Your task to perform on an android device: see sites visited before in the chrome app Image 0: 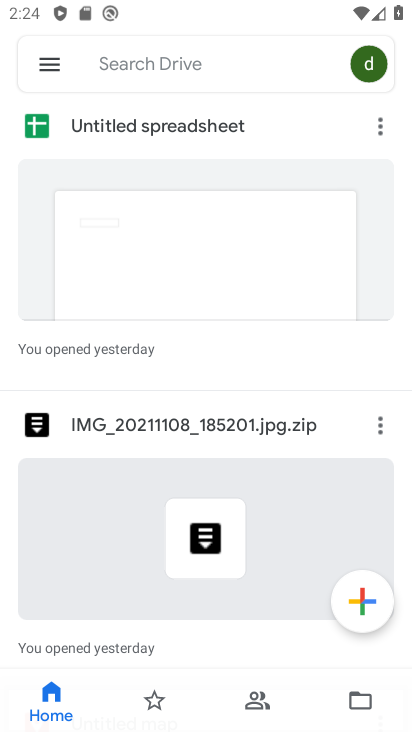
Step 0: press back button
Your task to perform on an android device: see sites visited before in the chrome app Image 1: 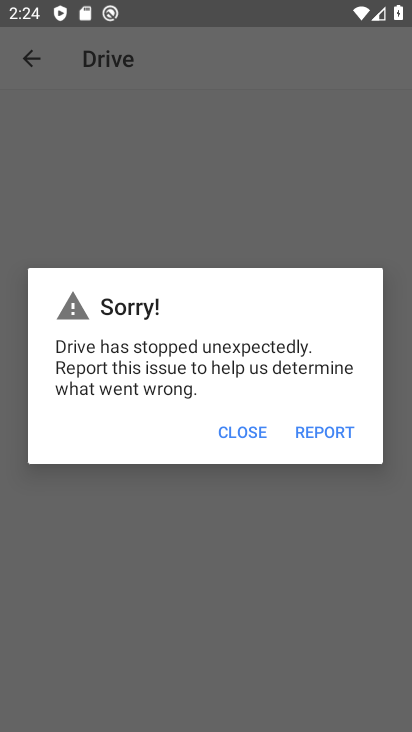
Step 1: click (259, 424)
Your task to perform on an android device: see sites visited before in the chrome app Image 2: 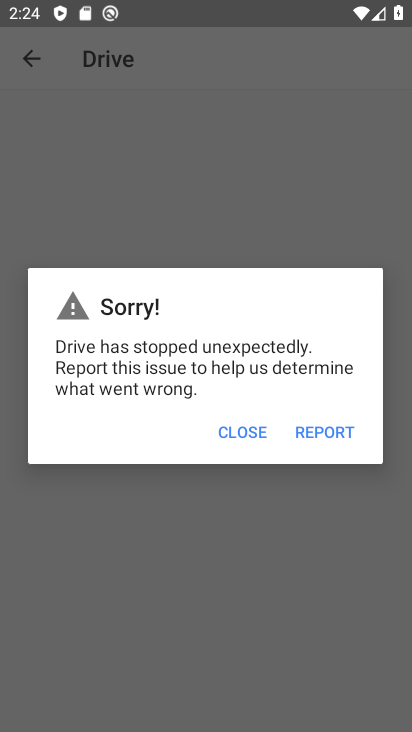
Step 2: click (259, 424)
Your task to perform on an android device: see sites visited before in the chrome app Image 3: 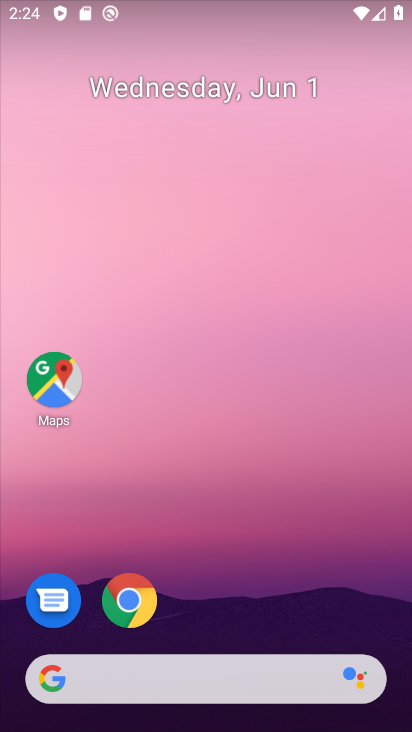
Step 3: drag from (249, 698) to (206, 263)
Your task to perform on an android device: see sites visited before in the chrome app Image 4: 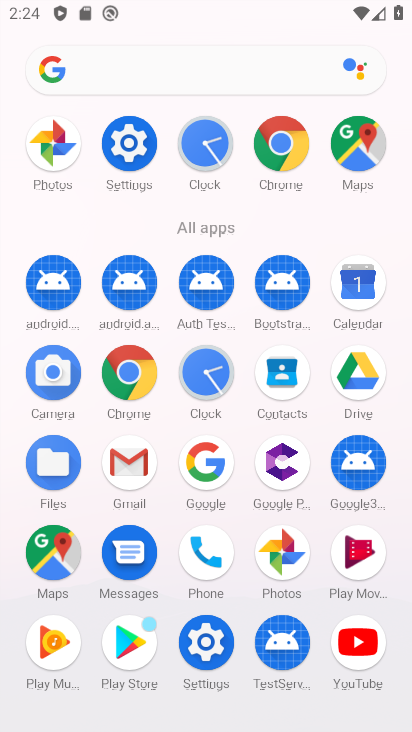
Step 4: click (279, 161)
Your task to perform on an android device: see sites visited before in the chrome app Image 5: 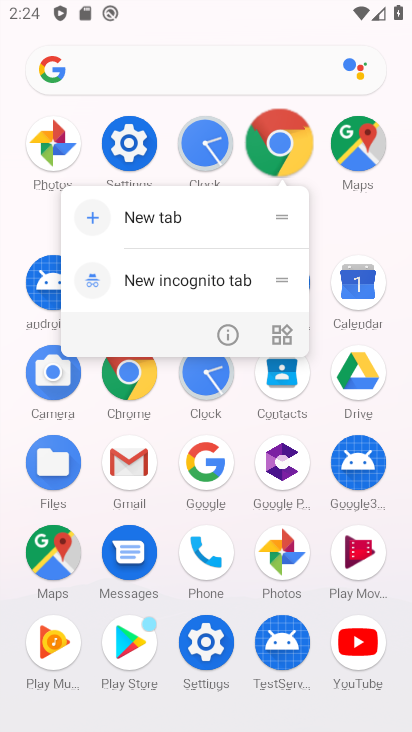
Step 5: click (277, 156)
Your task to perform on an android device: see sites visited before in the chrome app Image 6: 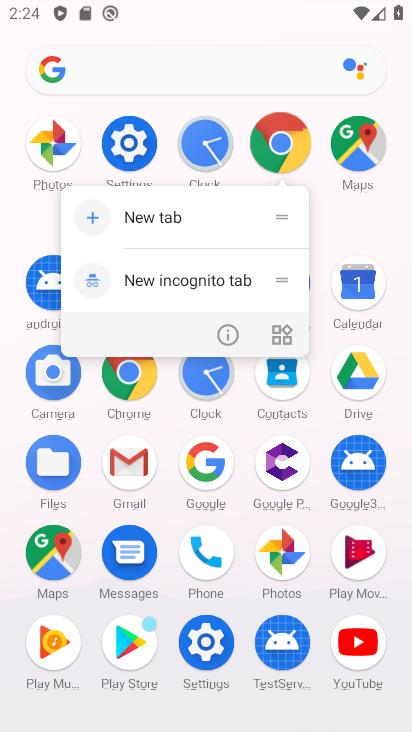
Step 6: click (277, 156)
Your task to perform on an android device: see sites visited before in the chrome app Image 7: 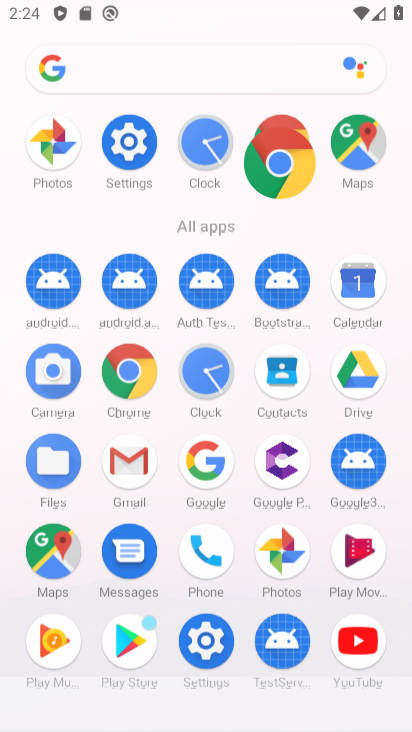
Step 7: click (277, 156)
Your task to perform on an android device: see sites visited before in the chrome app Image 8: 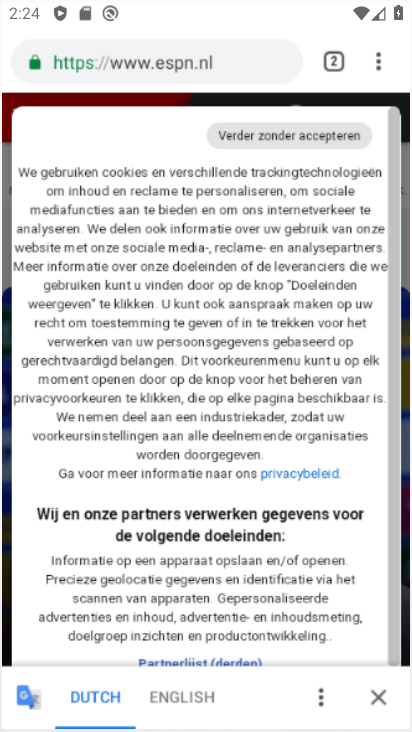
Step 8: click (277, 156)
Your task to perform on an android device: see sites visited before in the chrome app Image 9: 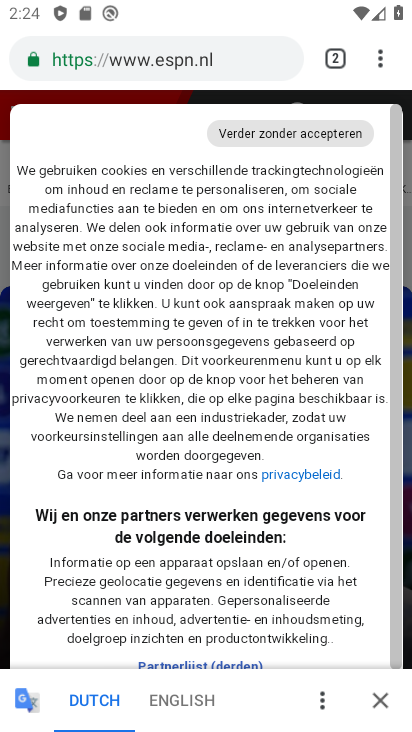
Step 9: press back button
Your task to perform on an android device: see sites visited before in the chrome app Image 10: 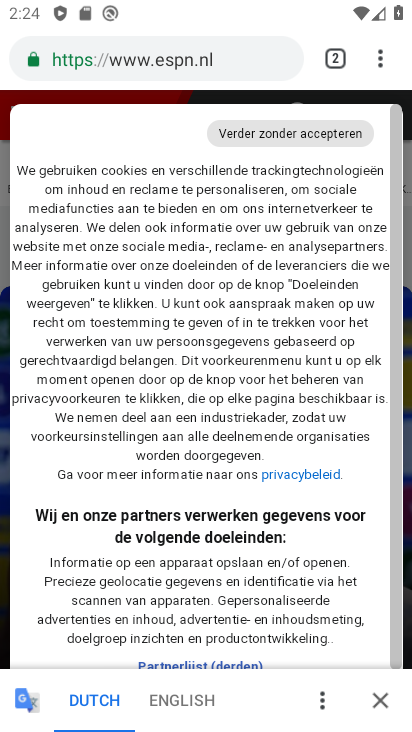
Step 10: press back button
Your task to perform on an android device: see sites visited before in the chrome app Image 11: 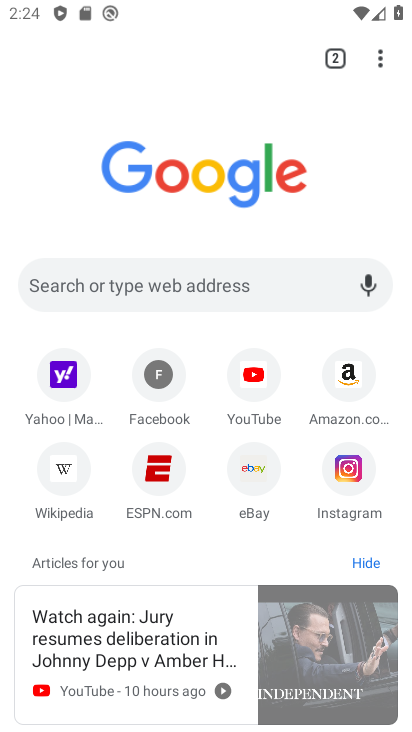
Step 11: press back button
Your task to perform on an android device: see sites visited before in the chrome app Image 12: 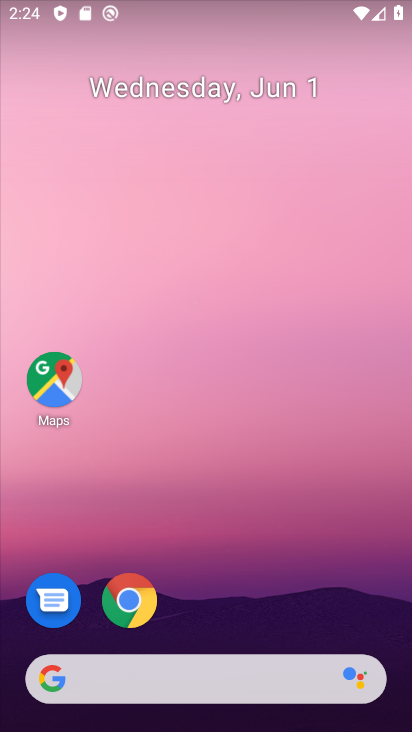
Step 12: drag from (229, 529) to (162, 71)
Your task to perform on an android device: see sites visited before in the chrome app Image 13: 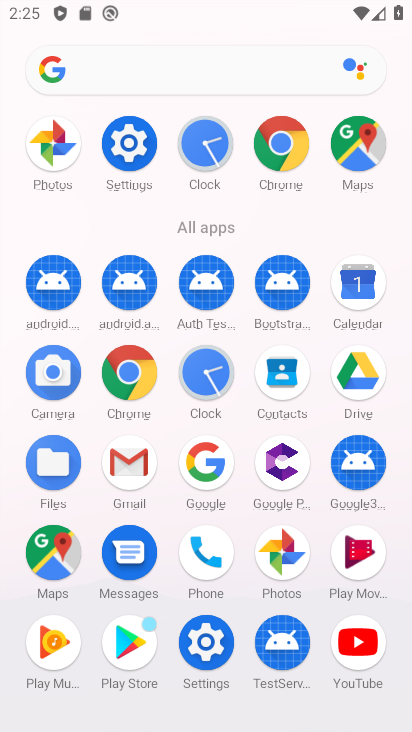
Step 13: click (282, 139)
Your task to perform on an android device: see sites visited before in the chrome app Image 14: 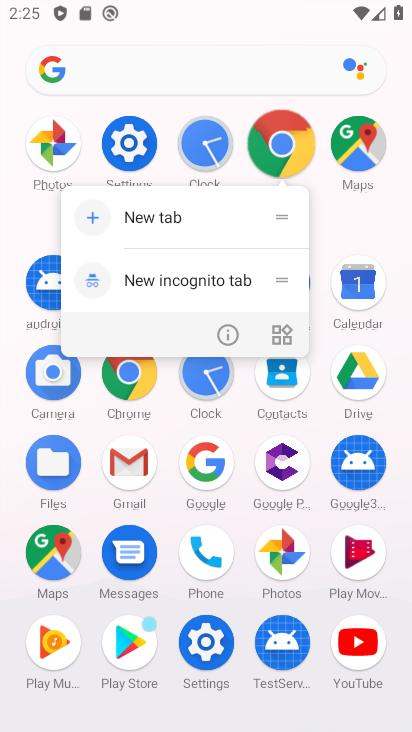
Step 14: click (280, 140)
Your task to perform on an android device: see sites visited before in the chrome app Image 15: 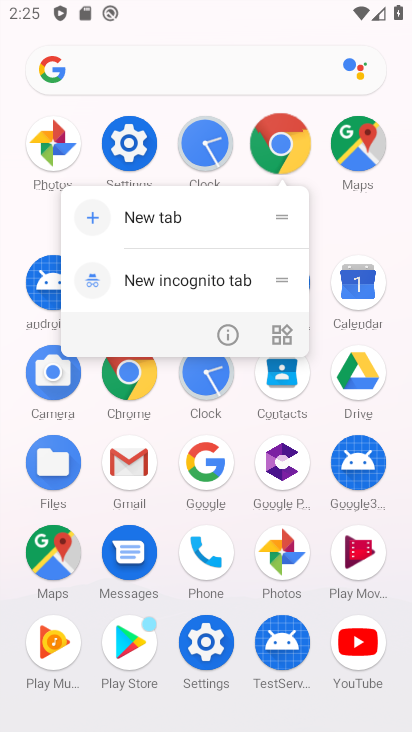
Step 15: click (280, 140)
Your task to perform on an android device: see sites visited before in the chrome app Image 16: 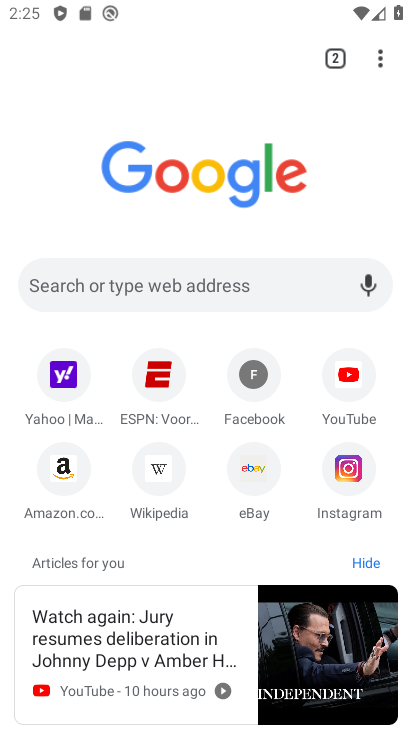
Step 16: drag from (383, 60) to (164, 344)
Your task to perform on an android device: see sites visited before in the chrome app Image 17: 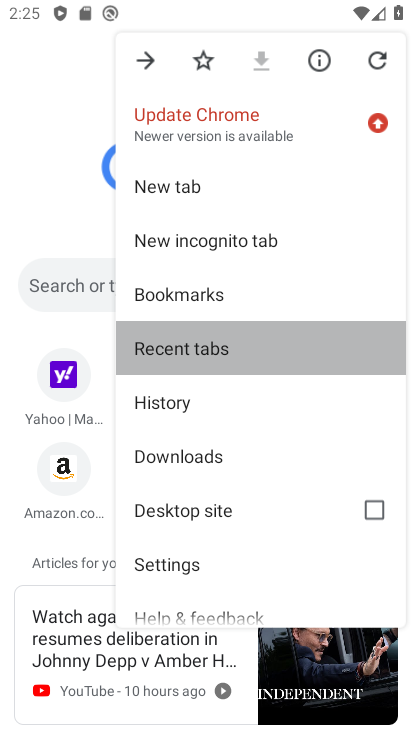
Step 17: click (160, 342)
Your task to perform on an android device: see sites visited before in the chrome app Image 18: 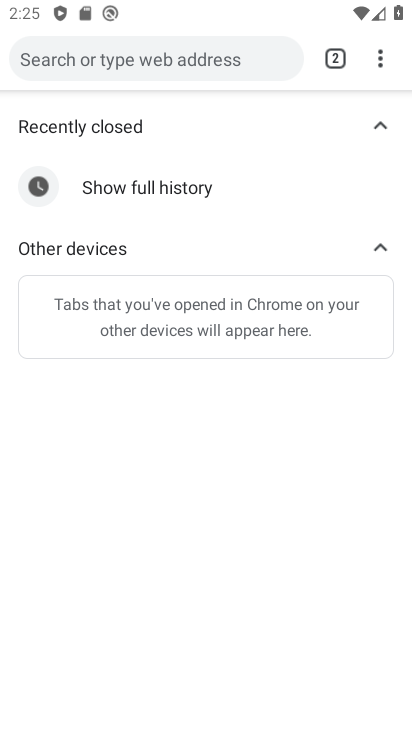
Step 18: click (160, 342)
Your task to perform on an android device: see sites visited before in the chrome app Image 19: 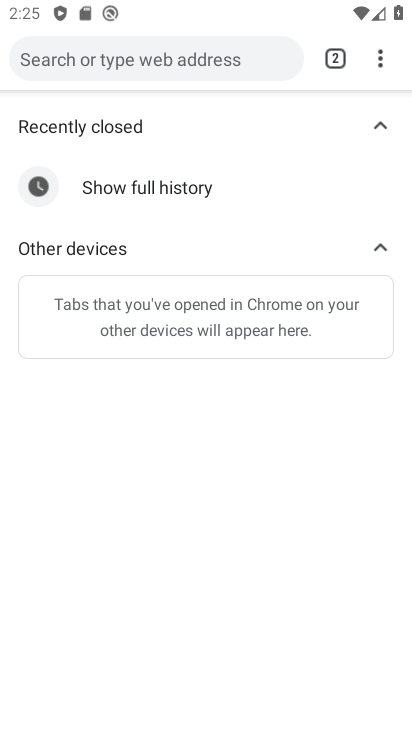
Step 19: task complete